Your task to perform on an android device: Open the gallery Image 0: 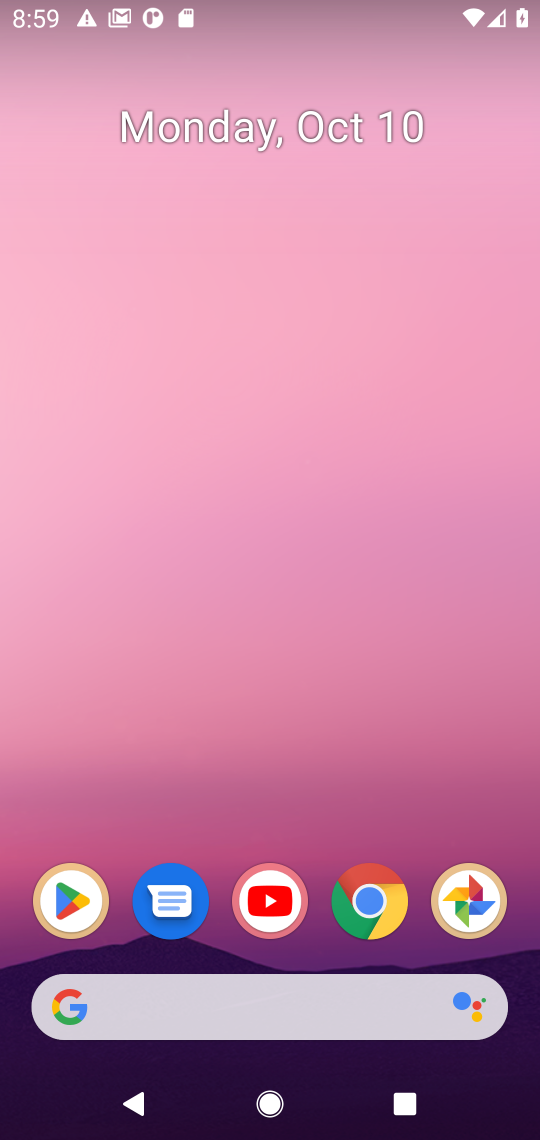
Step 0: drag from (473, 770) to (470, 104)
Your task to perform on an android device: Open the gallery Image 1: 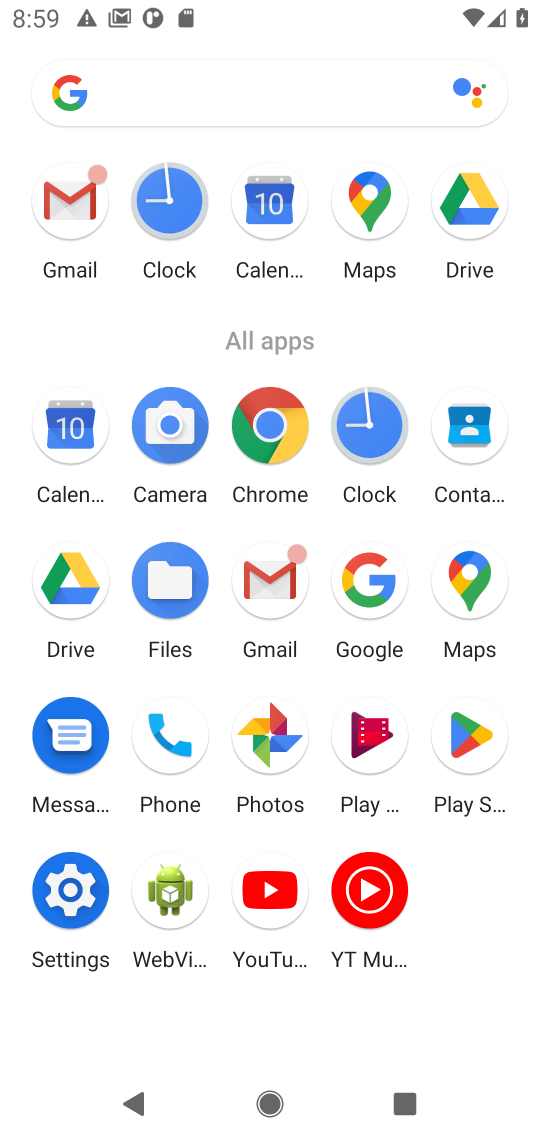
Step 1: task complete